Your task to perform on an android device: toggle improve location accuracy Image 0: 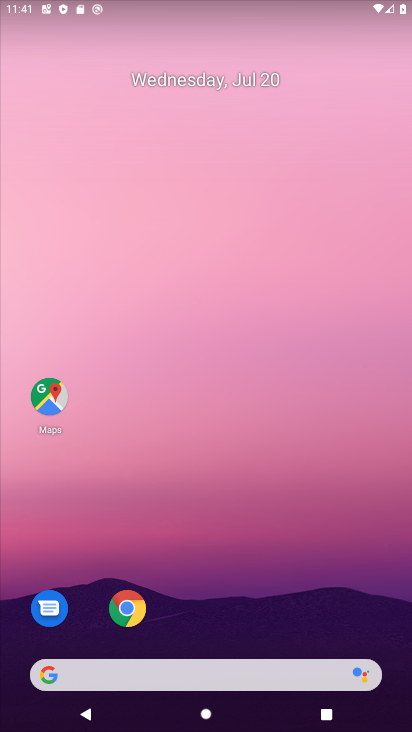
Step 0: drag from (326, 598) to (230, 144)
Your task to perform on an android device: toggle improve location accuracy Image 1: 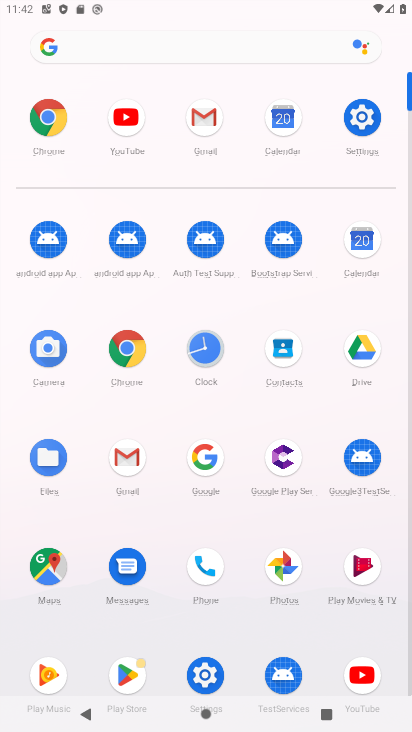
Step 1: click (207, 665)
Your task to perform on an android device: toggle improve location accuracy Image 2: 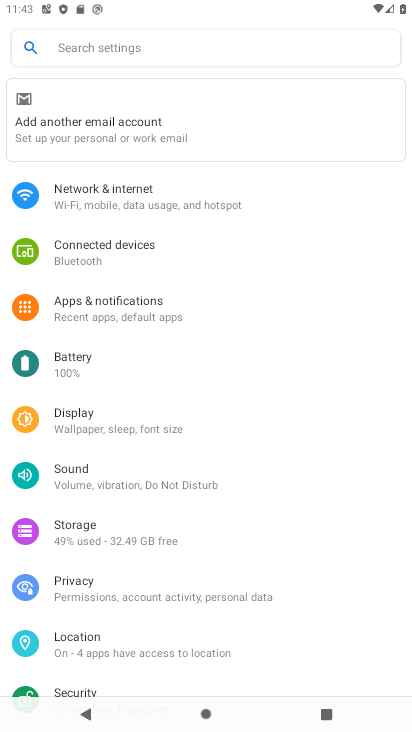
Step 2: click (97, 642)
Your task to perform on an android device: toggle improve location accuracy Image 3: 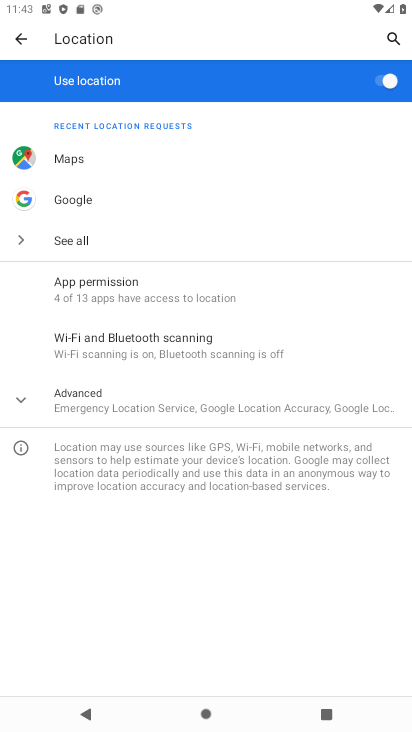
Step 3: click (95, 402)
Your task to perform on an android device: toggle improve location accuracy Image 4: 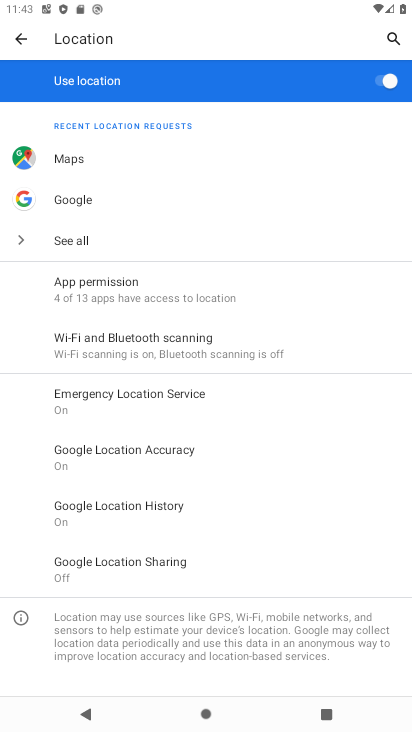
Step 4: click (154, 460)
Your task to perform on an android device: toggle improve location accuracy Image 5: 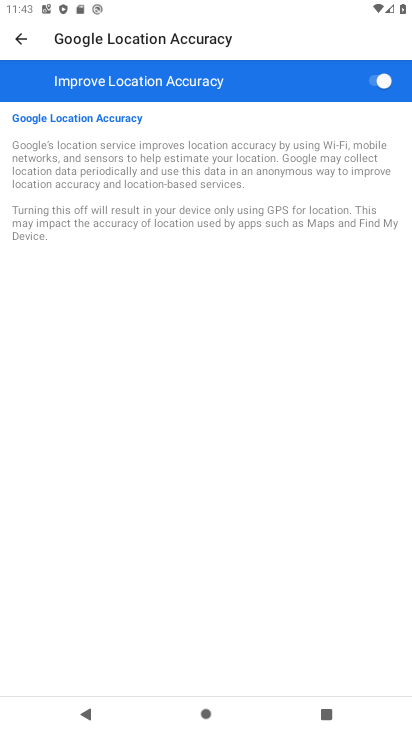
Step 5: click (380, 98)
Your task to perform on an android device: toggle improve location accuracy Image 6: 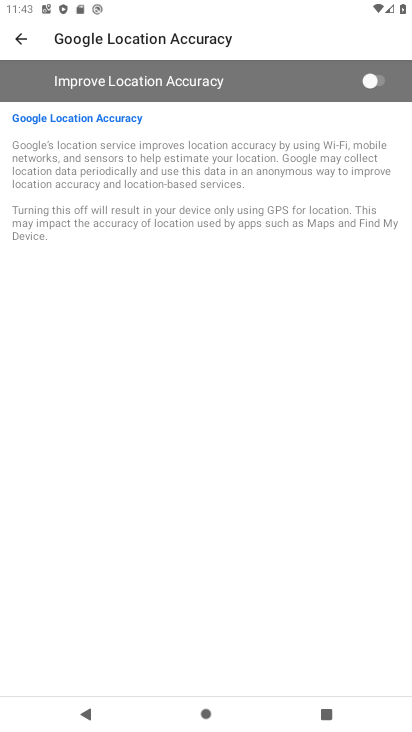
Step 6: task complete